Your task to perform on an android device: all mails in gmail Image 0: 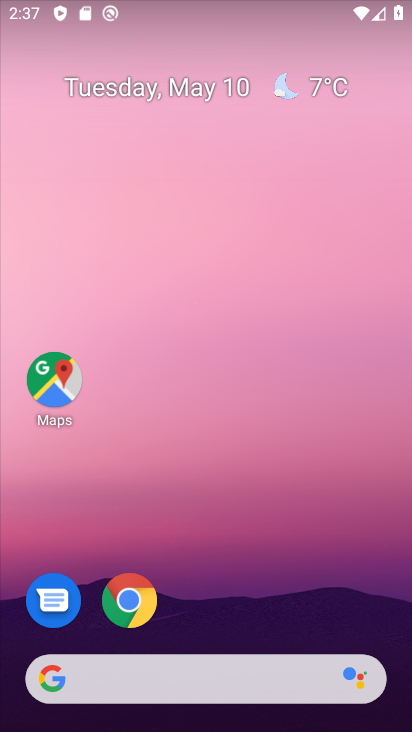
Step 0: drag from (176, 662) to (193, 218)
Your task to perform on an android device: all mails in gmail Image 1: 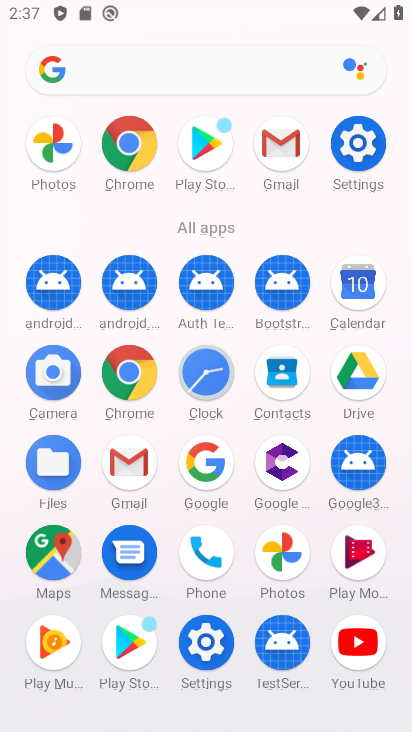
Step 1: click (291, 133)
Your task to perform on an android device: all mails in gmail Image 2: 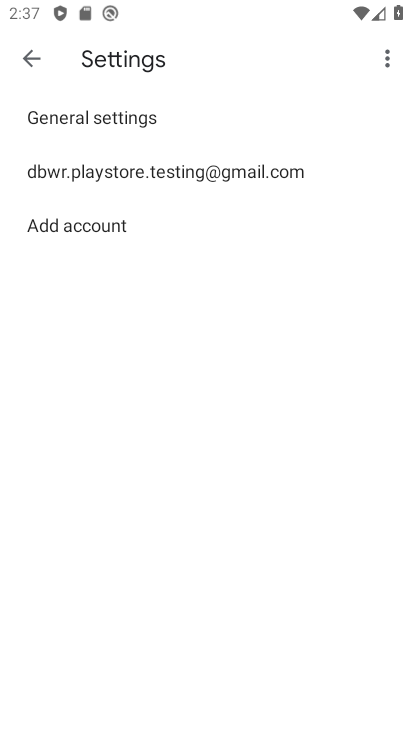
Step 2: click (31, 61)
Your task to perform on an android device: all mails in gmail Image 3: 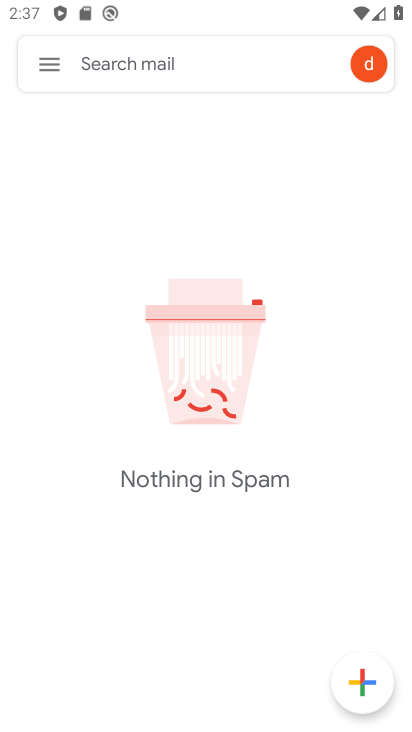
Step 3: click (52, 60)
Your task to perform on an android device: all mails in gmail Image 4: 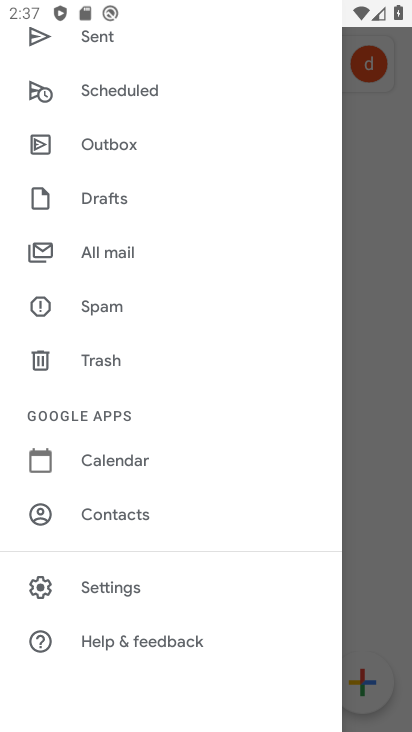
Step 4: click (110, 258)
Your task to perform on an android device: all mails in gmail Image 5: 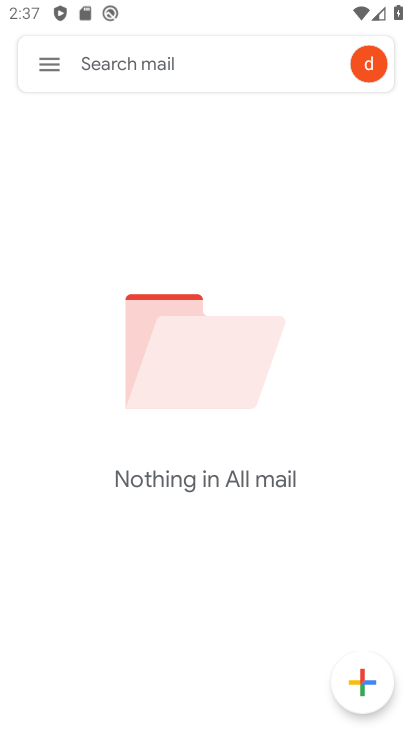
Step 5: task complete